Your task to perform on an android device: Open ESPN.com Image 0: 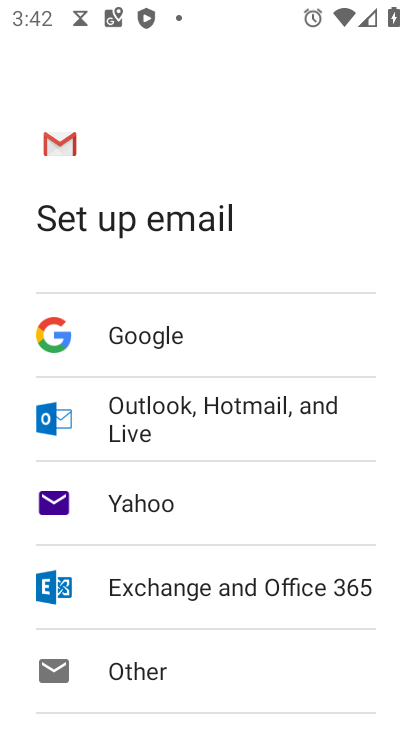
Step 0: press back button
Your task to perform on an android device: Open ESPN.com Image 1: 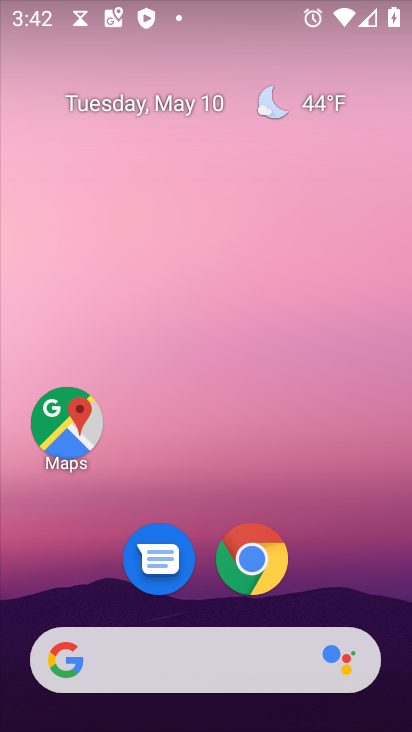
Step 1: drag from (289, 545) to (166, 33)
Your task to perform on an android device: Open ESPN.com Image 2: 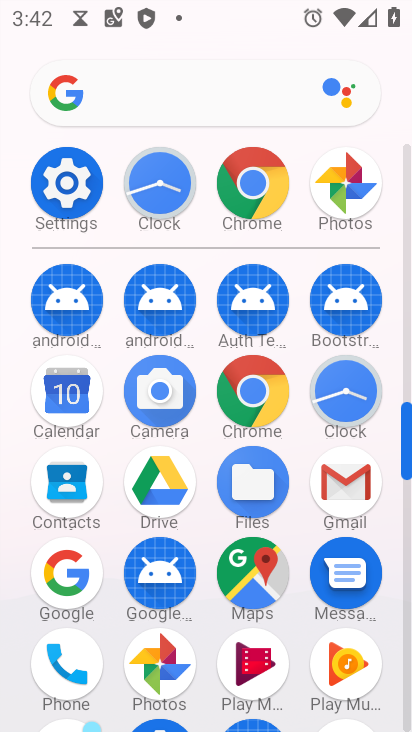
Step 2: click (245, 191)
Your task to perform on an android device: Open ESPN.com Image 3: 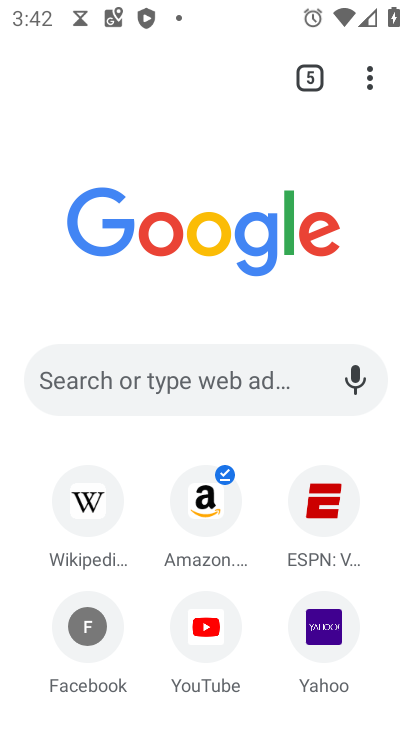
Step 3: click (319, 507)
Your task to perform on an android device: Open ESPN.com Image 4: 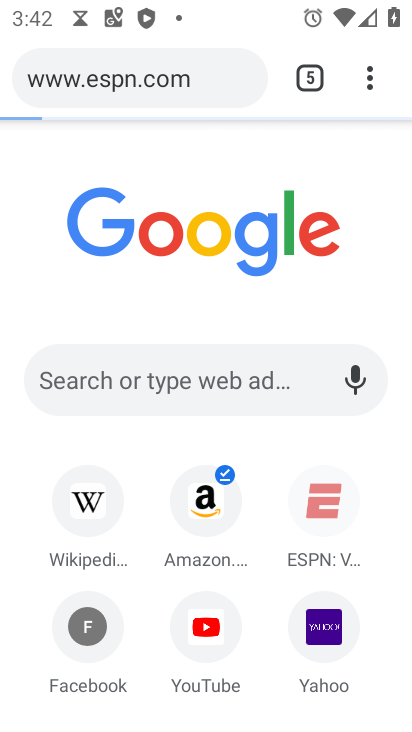
Step 4: click (320, 507)
Your task to perform on an android device: Open ESPN.com Image 5: 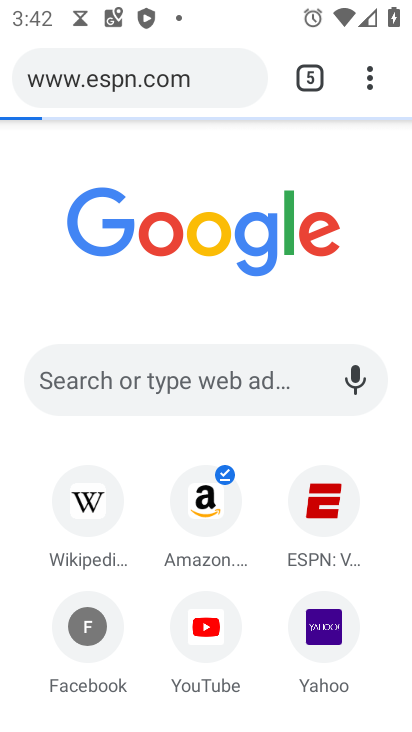
Step 5: click (321, 507)
Your task to perform on an android device: Open ESPN.com Image 6: 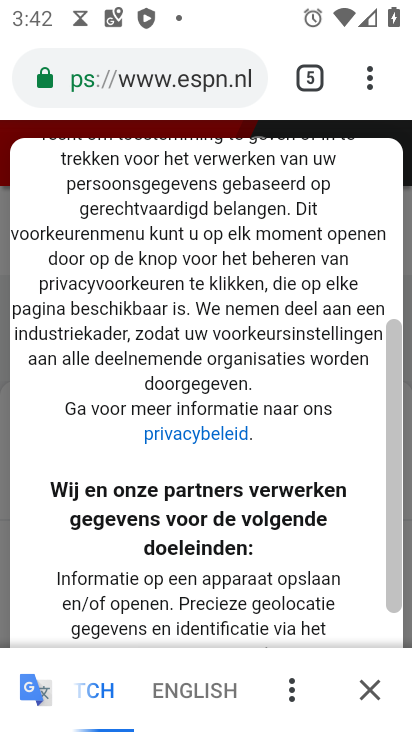
Step 6: task complete